Your task to perform on an android device: Open internet settings Image 0: 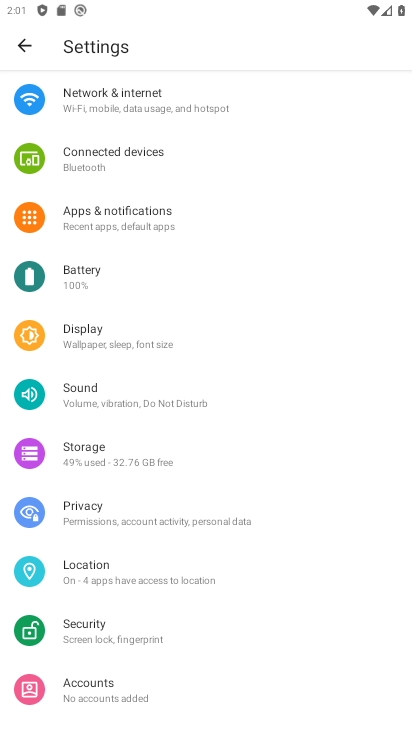
Step 0: click (157, 104)
Your task to perform on an android device: Open internet settings Image 1: 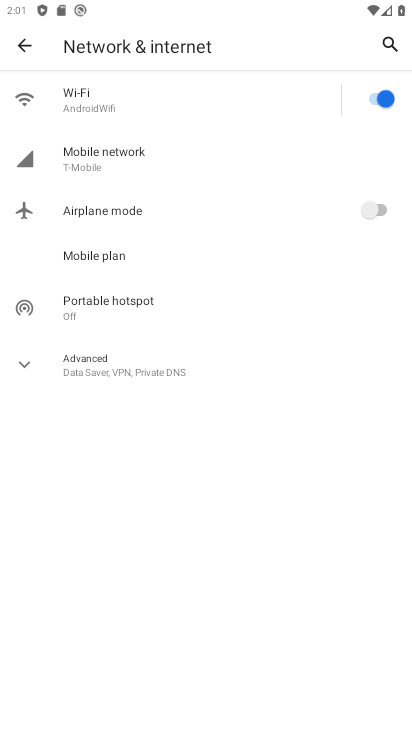
Step 1: click (144, 362)
Your task to perform on an android device: Open internet settings Image 2: 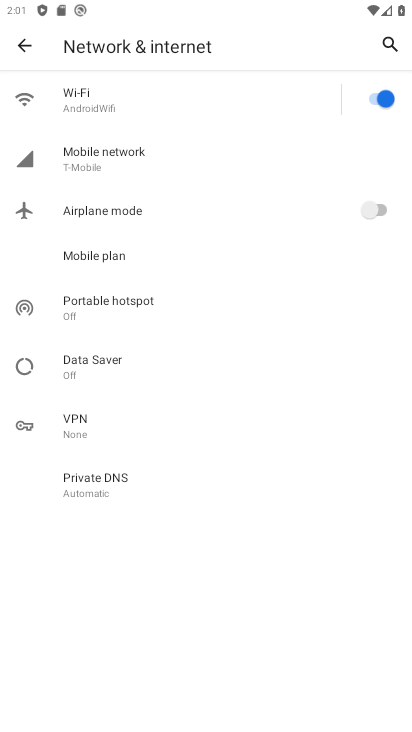
Step 2: task complete